Your task to perform on an android device: Go to eBay Image 0: 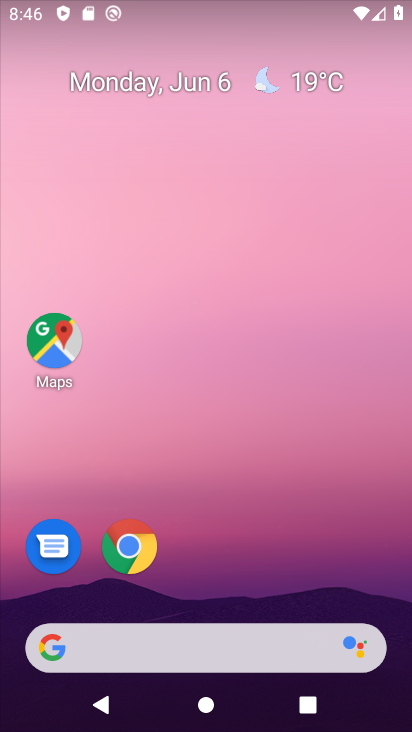
Step 0: click (123, 555)
Your task to perform on an android device: Go to eBay Image 1: 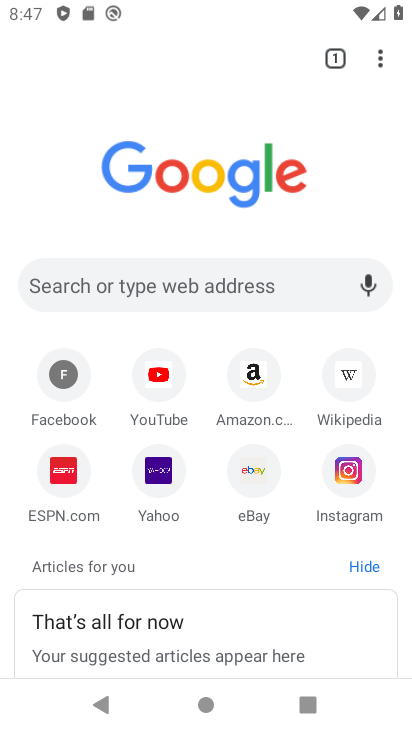
Step 1: click (245, 461)
Your task to perform on an android device: Go to eBay Image 2: 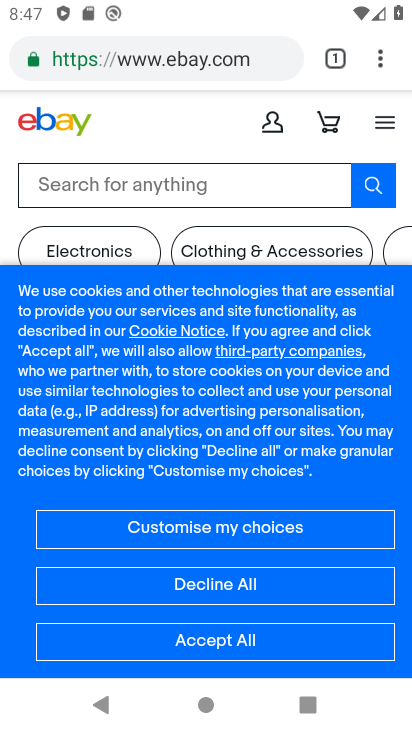
Step 2: click (209, 643)
Your task to perform on an android device: Go to eBay Image 3: 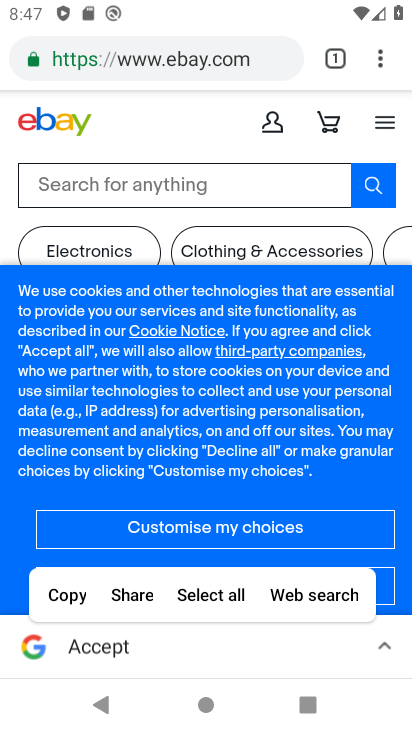
Step 3: press back button
Your task to perform on an android device: Go to eBay Image 4: 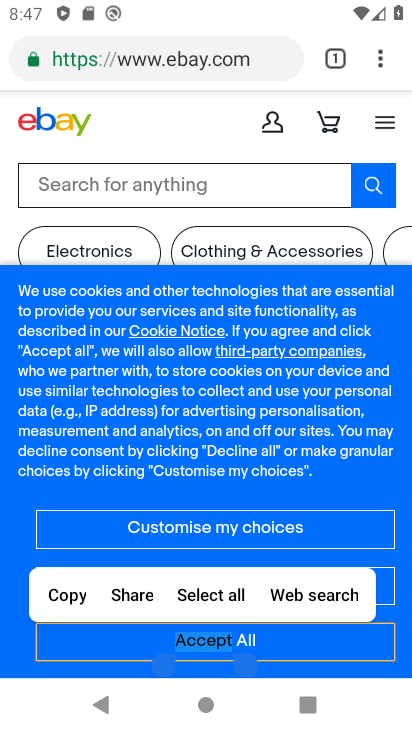
Step 4: click (260, 643)
Your task to perform on an android device: Go to eBay Image 5: 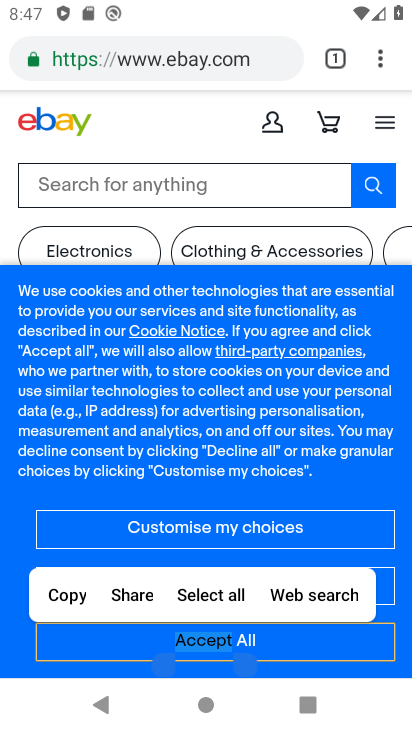
Step 5: click (263, 642)
Your task to perform on an android device: Go to eBay Image 6: 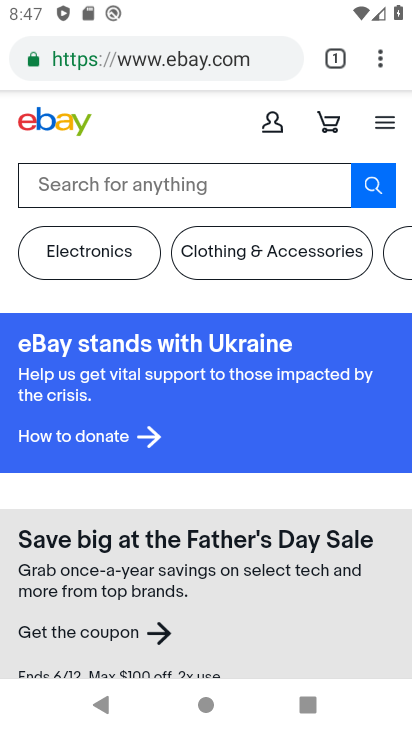
Step 6: click (139, 430)
Your task to perform on an android device: Go to eBay Image 7: 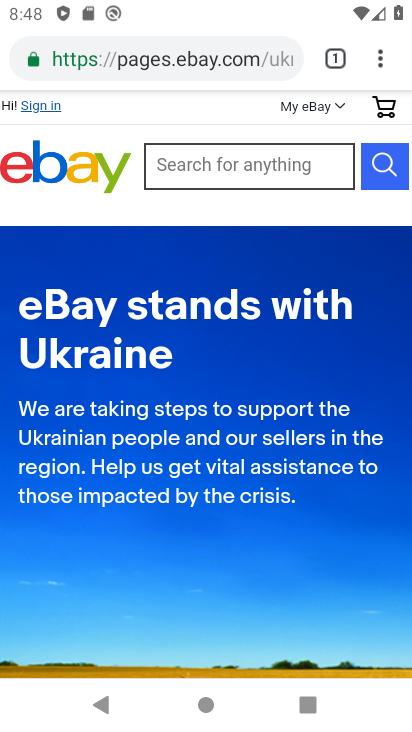
Step 7: task complete